Your task to perform on an android device: What's the weather today? Image 0: 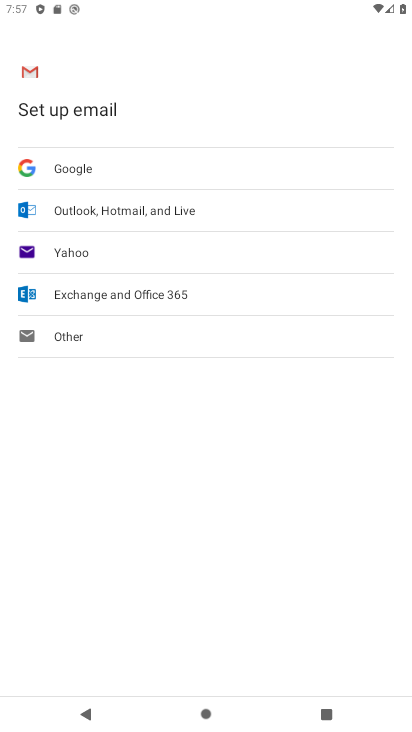
Step 0: press home button
Your task to perform on an android device: What's the weather today? Image 1: 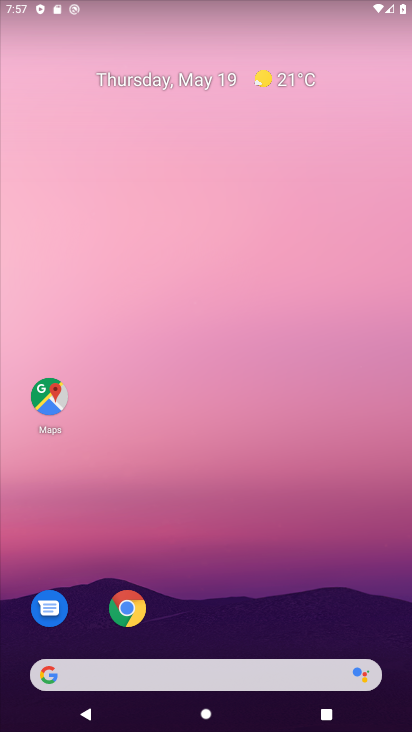
Step 1: click (114, 674)
Your task to perform on an android device: What's the weather today? Image 2: 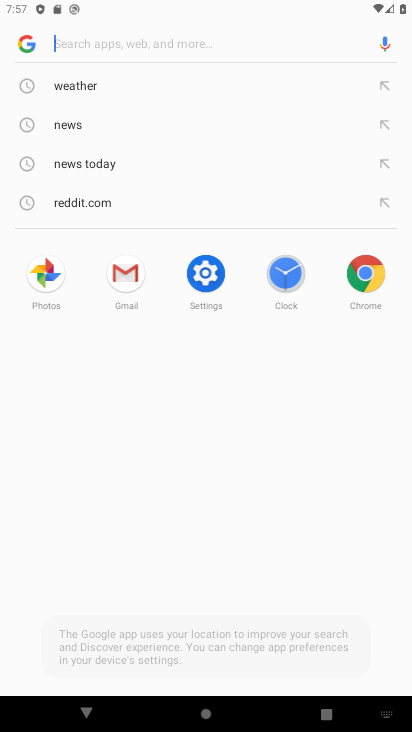
Step 2: click (74, 84)
Your task to perform on an android device: What's the weather today? Image 3: 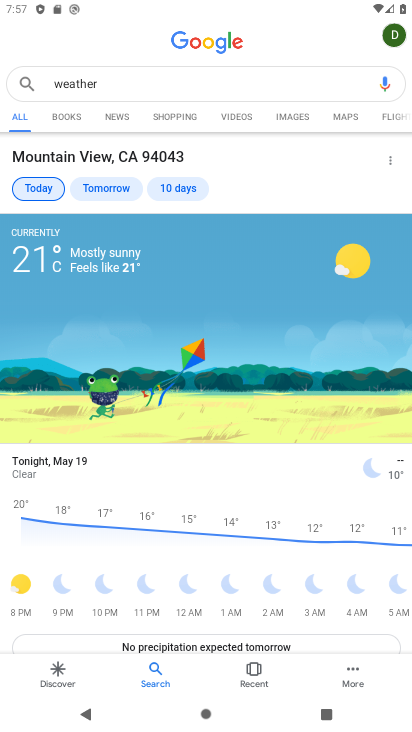
Step 3: task complete